Your task to perform on an android device: Show me the alarms in the clock app Image 0: 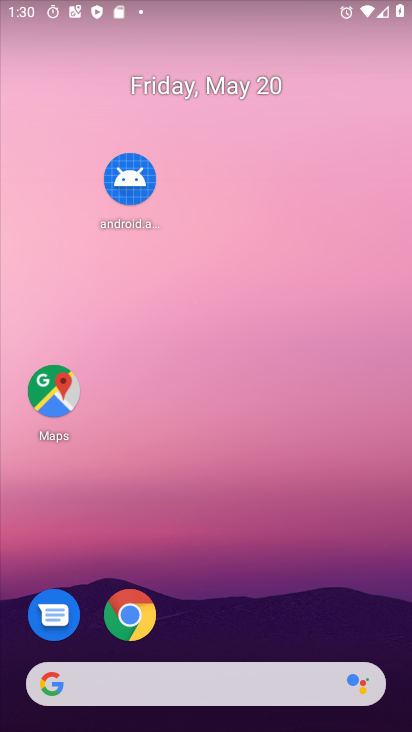
Step 0: drag from (274, 609) to (209, 105)
Your task to perform on an android device: Show me the alarms in the clock app Image 1: 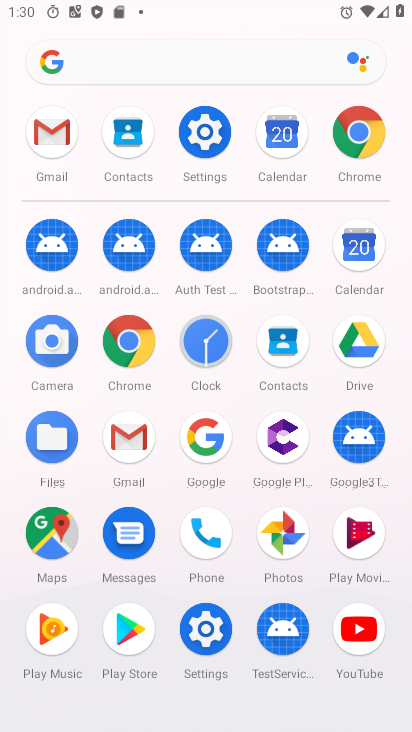
Step 1: click (216, 343)
Your task to perform on an android device: Show me the alarms in the clock app Image 2: 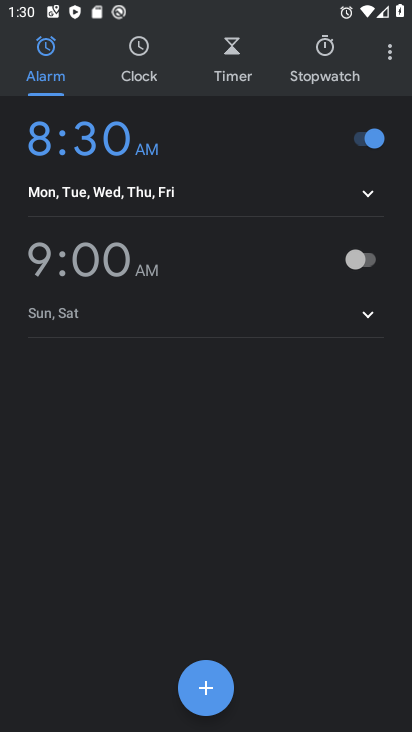
Step 2: task complete